Your task to perform on an android device: Open Chrome and go to settings Image 0: 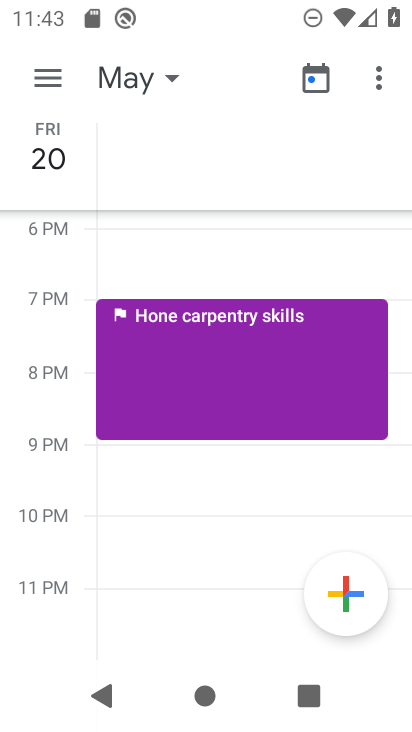
Step 0: press home button
Your task to perform on an android device: Open Chrome and go to settings Image 1: 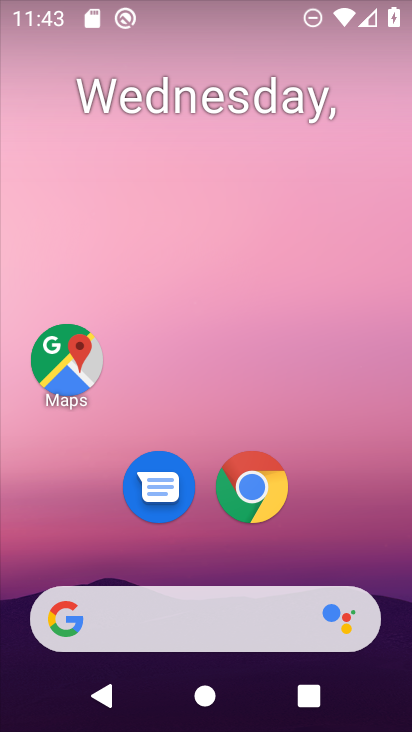
Step 1: click (245, 488)
Your task to perform on an android device: Open Chrome and go to settings Image 2: 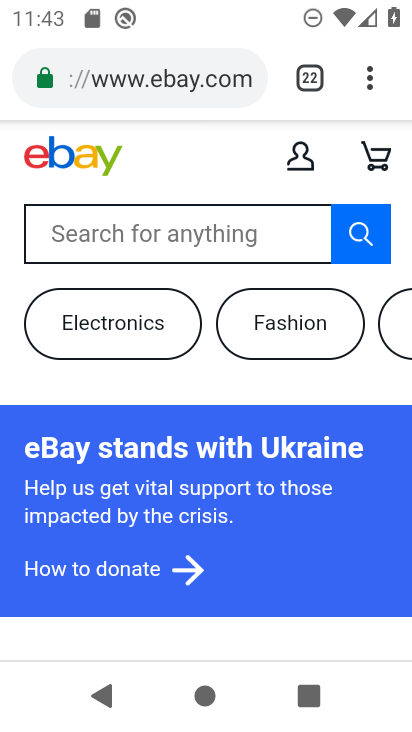
Step 2: click (365, 74)
Your task to perform on an android device: Open Chrome and go to settings Image 3: 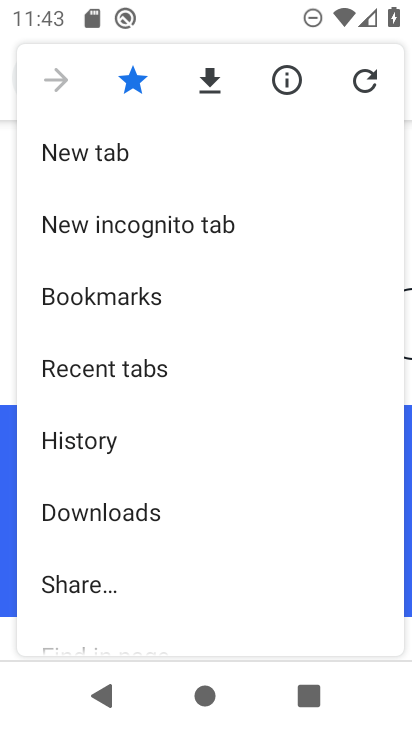
Step 3: drag from (279, 591) to (272, 233)
Your task to perform on an android device: Open Chrome and go to settings Image 4: 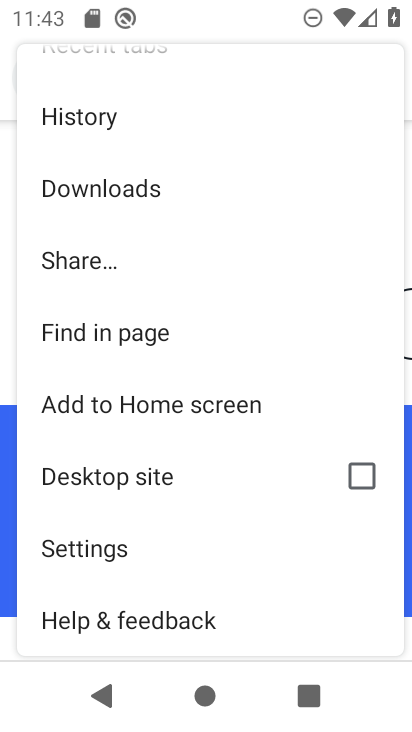
Step 4: click (94, 545)
Your task to perform on an android device: Open Chrome and go to settings Image 5: 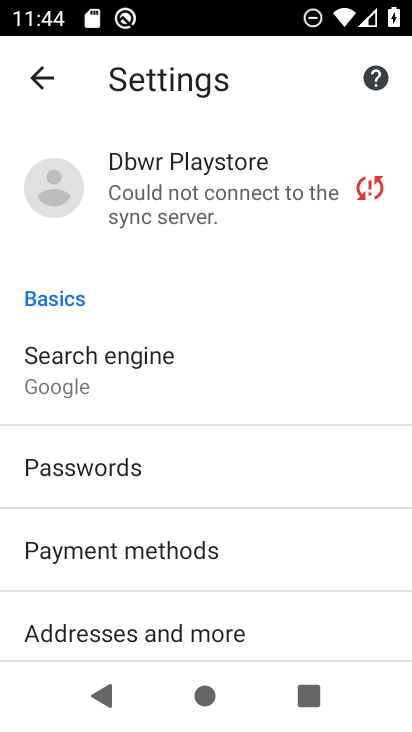
Step 5: click (249, 194)
Your task to perform on an android device: Open Chrome and go to settings Image 6: 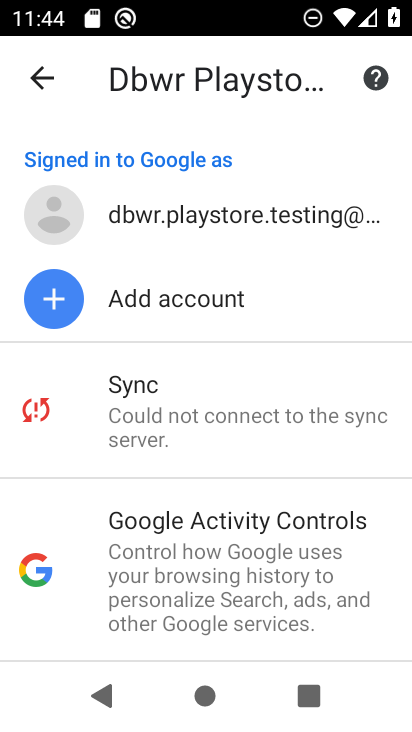
Step 6: task complete